Your task to perform on an android device: open chrome privacy settings Image 0: 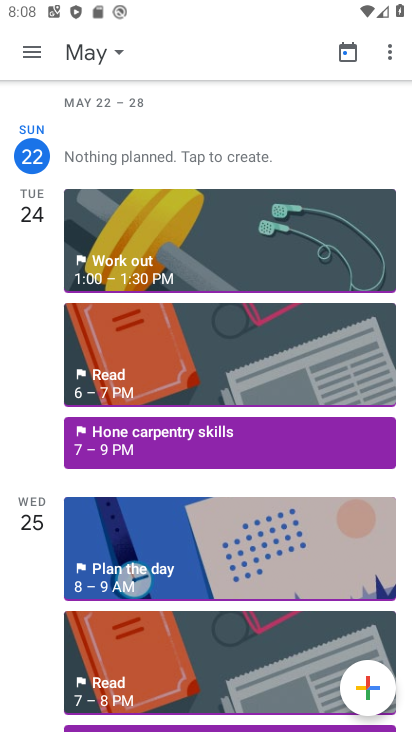
Step 0: press home button
Your task to perform on an android device: open chrome privacy settings Image 1: 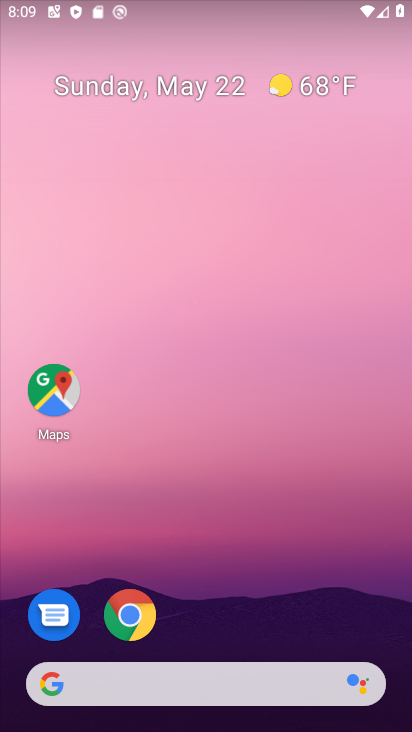
Step 1: click (138, 621)
Your task to perform on an android device: open chrome privacy settings Image 2: 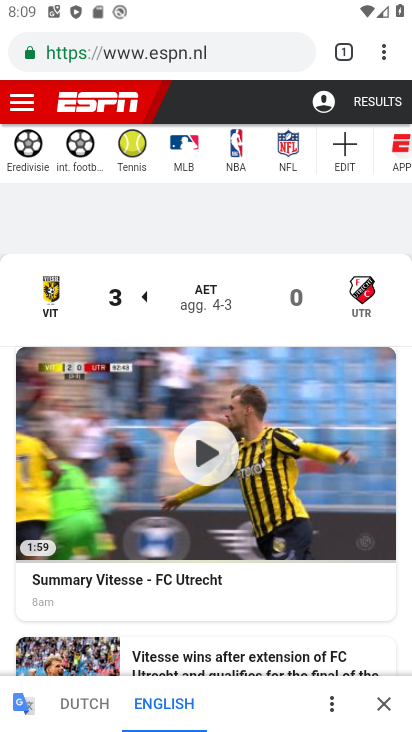
Step 2: click (377, 50)
Your task to perform on an android device: open chrome privacy settings Image 3: 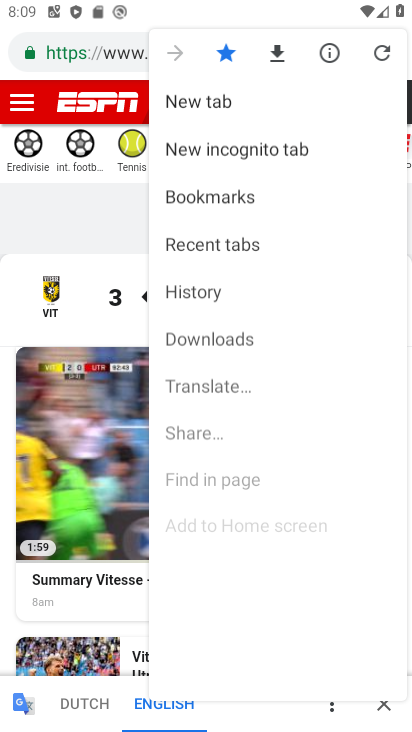
Step 3: click (377, 50)
Your task to perform on an android device: open chrome privacy settings Image 4: 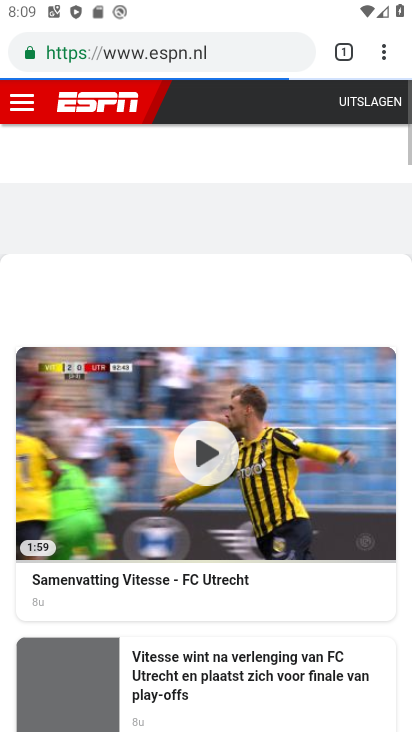
Step 4: click (383, 56)
Your task to perform on an android device: open chrome privacy settings Image 5: 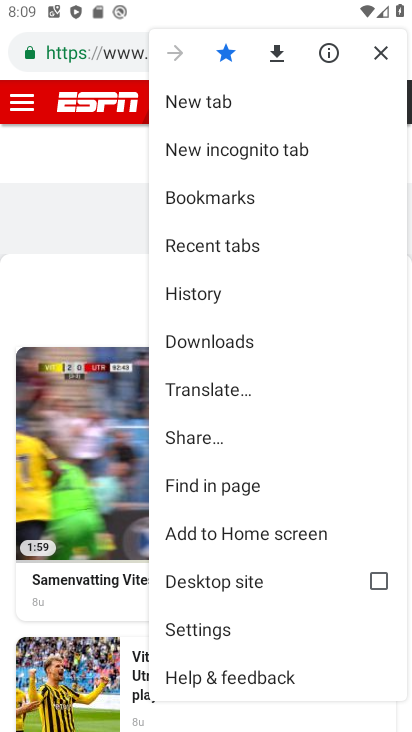
Step 5: click (212, 609)
Your task to perform on an android device: open chrome privacy settings Image 6: 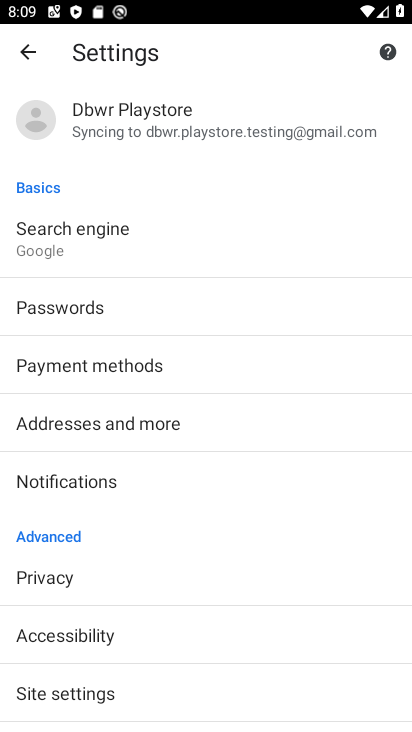
Step 6: click (48, 568)
Your task to perform on an android device: open chrome privacy settings Image 7: 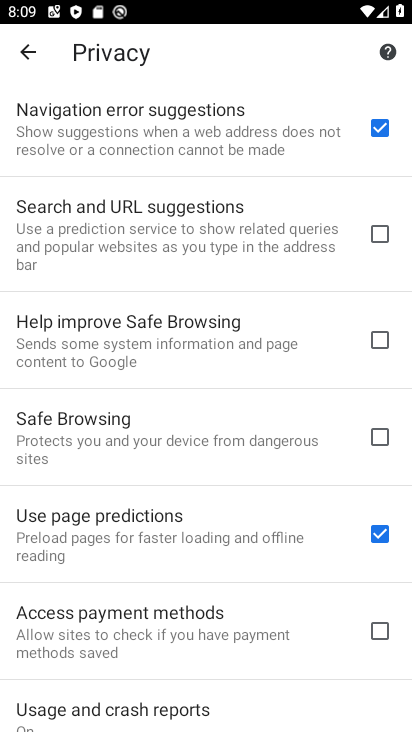
Step 7: task complete